Your task to perform on an android device: View the shopping cart on costco.com. Search for razer deathadder on costco.com, select the first entry, and add it to the cart. Image 0: 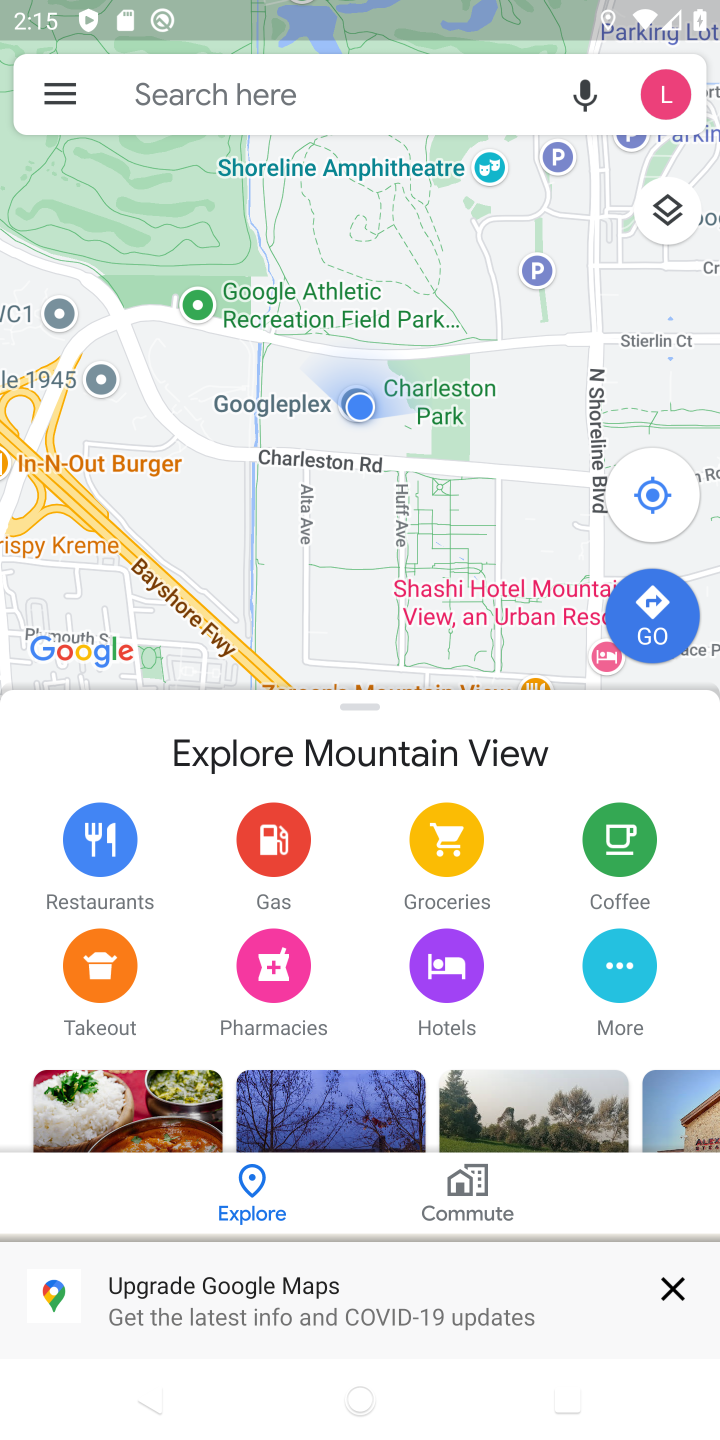
Step 0: press home button
Your task to perform on an android device: View the shopping cart on costco.com. Search for razer deathadder on costco.com, select the first entry, and add it to the cart. Image 1: 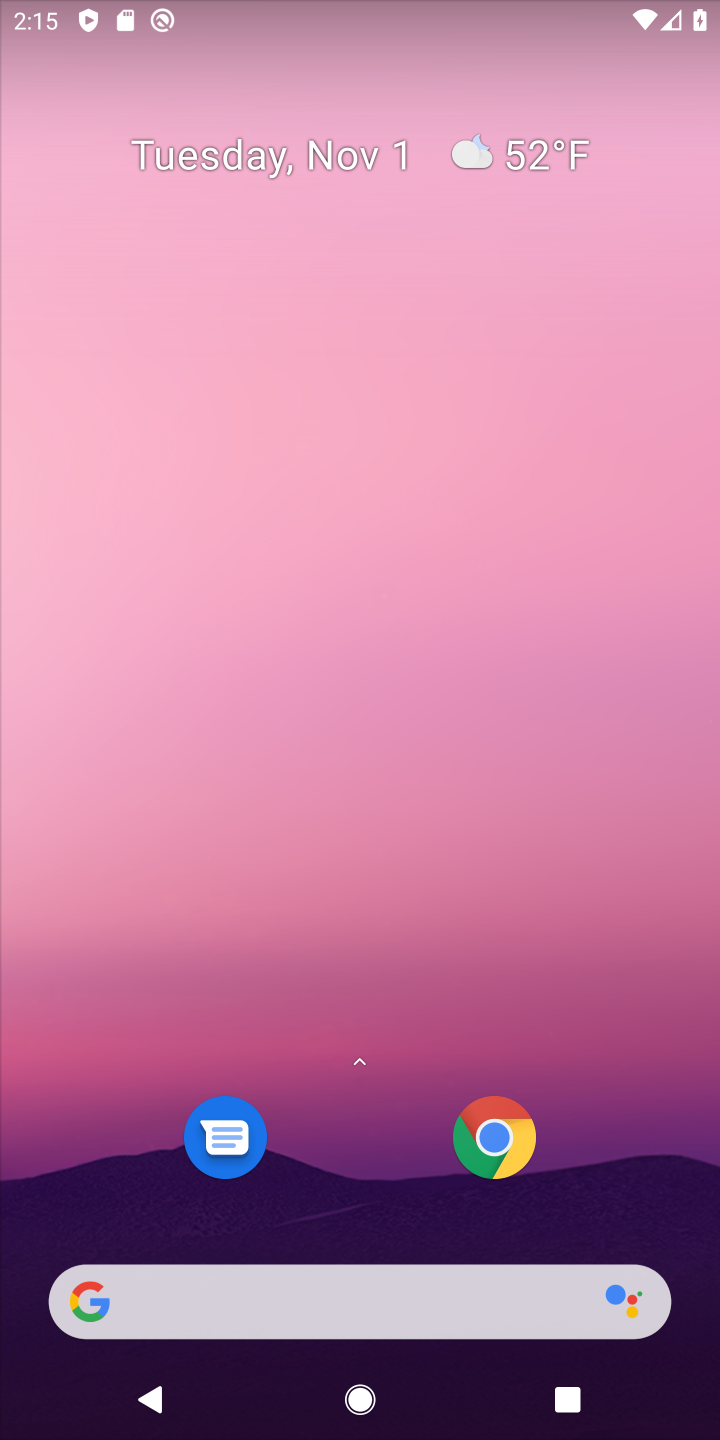
Step 1: click (335, 1294)
Your task to perform on an android device: View the shopping cart on costco.com. Search for razer deathadder on costco.com, select the first entry, and add it to the cart. Image 2: 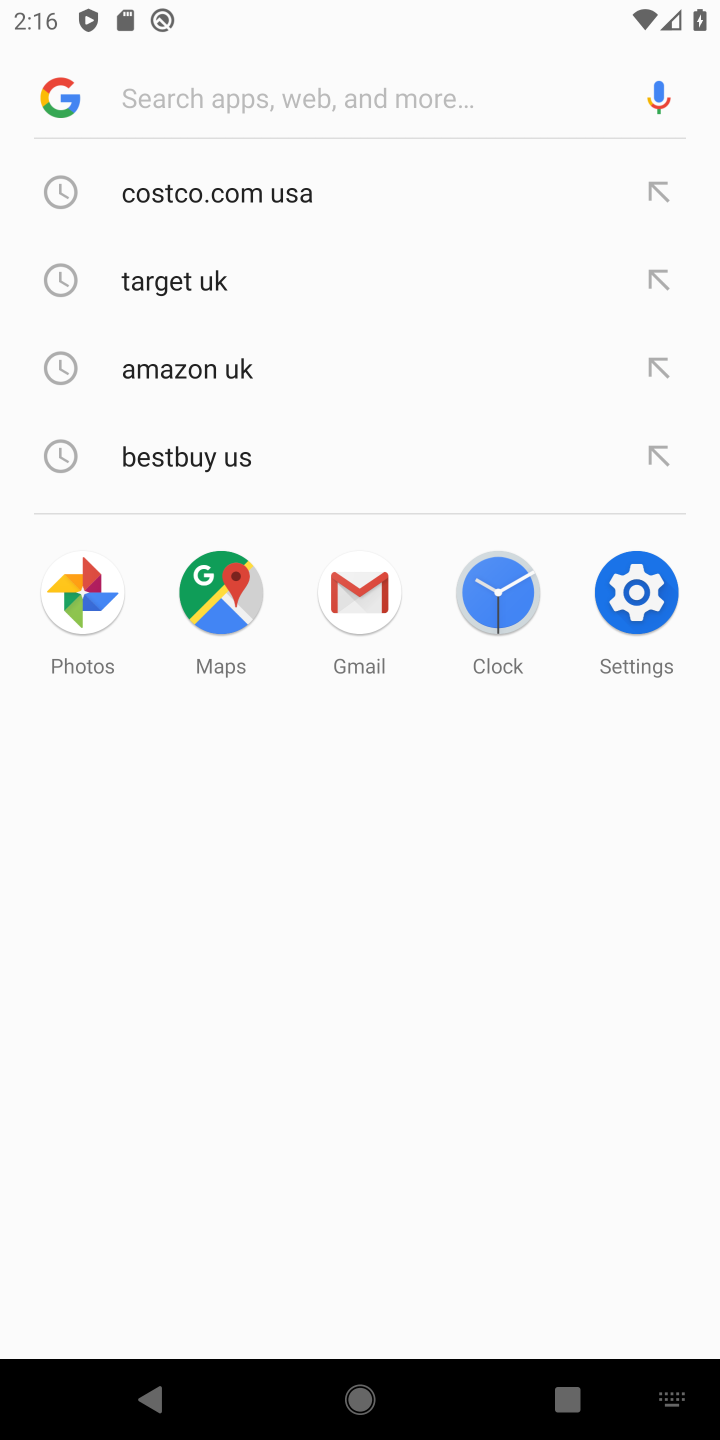
Step 2: click (276, 187)
Your task to perform on an android device: View the shopping cart on costco.com. Search for razer deathadder on costco.com, select the first entry, and add it to the cart. Image 3: 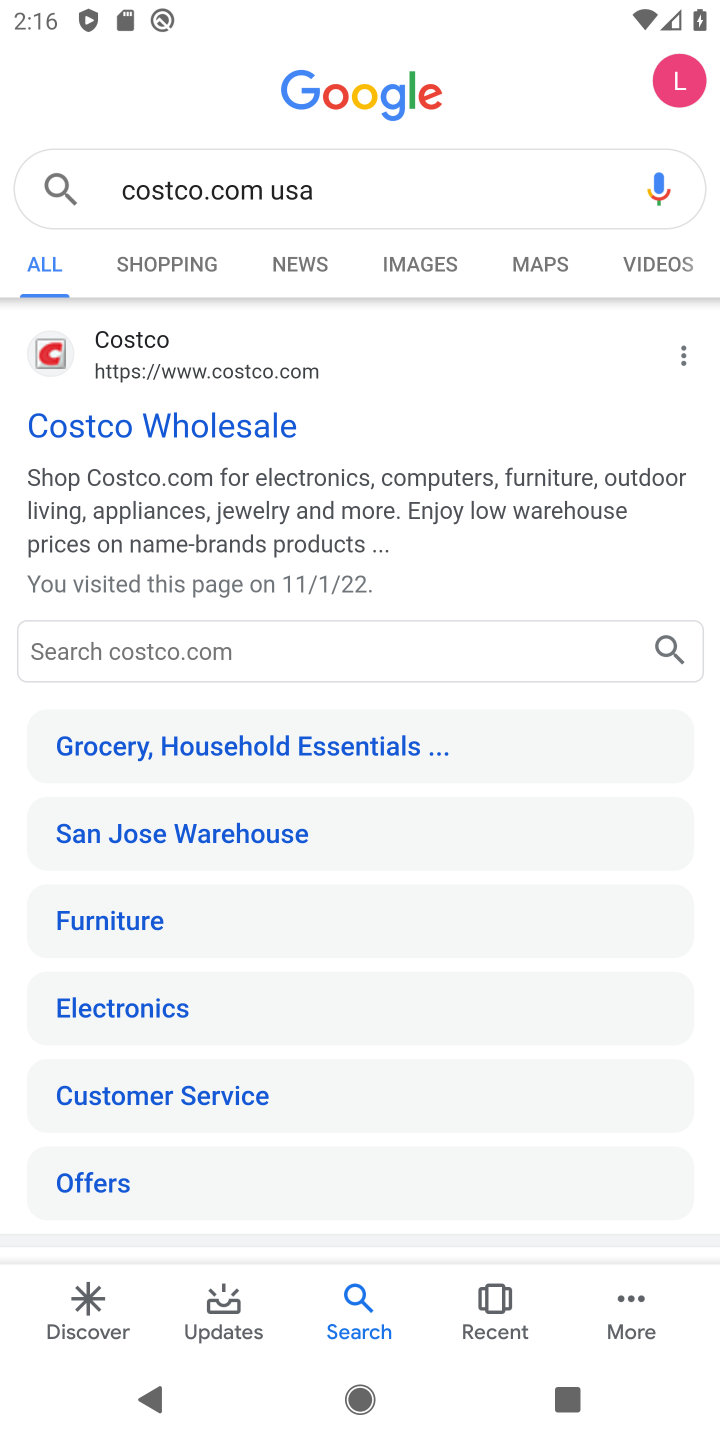
Step 3: click (194, 411)
Your task to perform on an android device: View the shopping cart on costco.com. Search for razer deathadder on costco.com, select the first entry, and add it to the cart. Image 4: 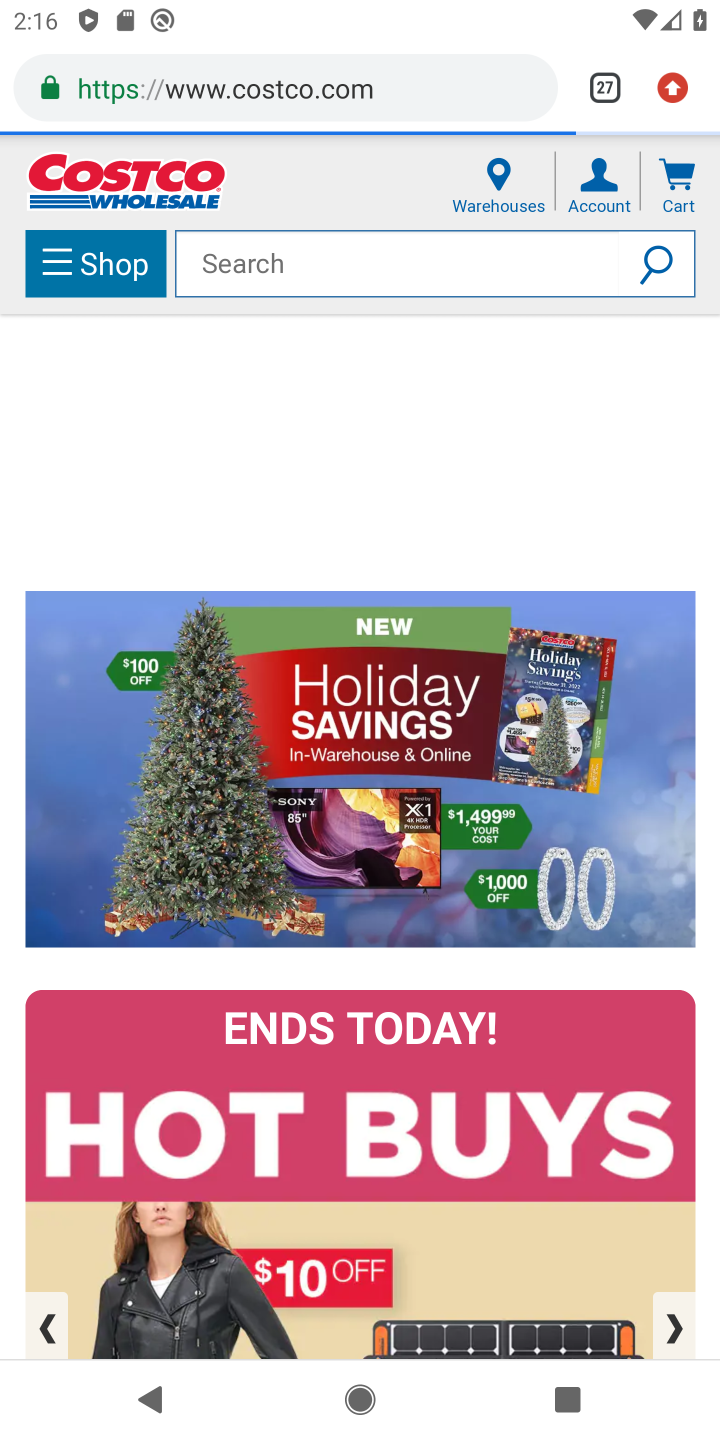
Step 4: click (233, 276)
Your task to perform on an android device: View the shopping cart on costco.com. Search for razer deathadder on costco.com, select the first entry, and add it to the cart. Image 5: 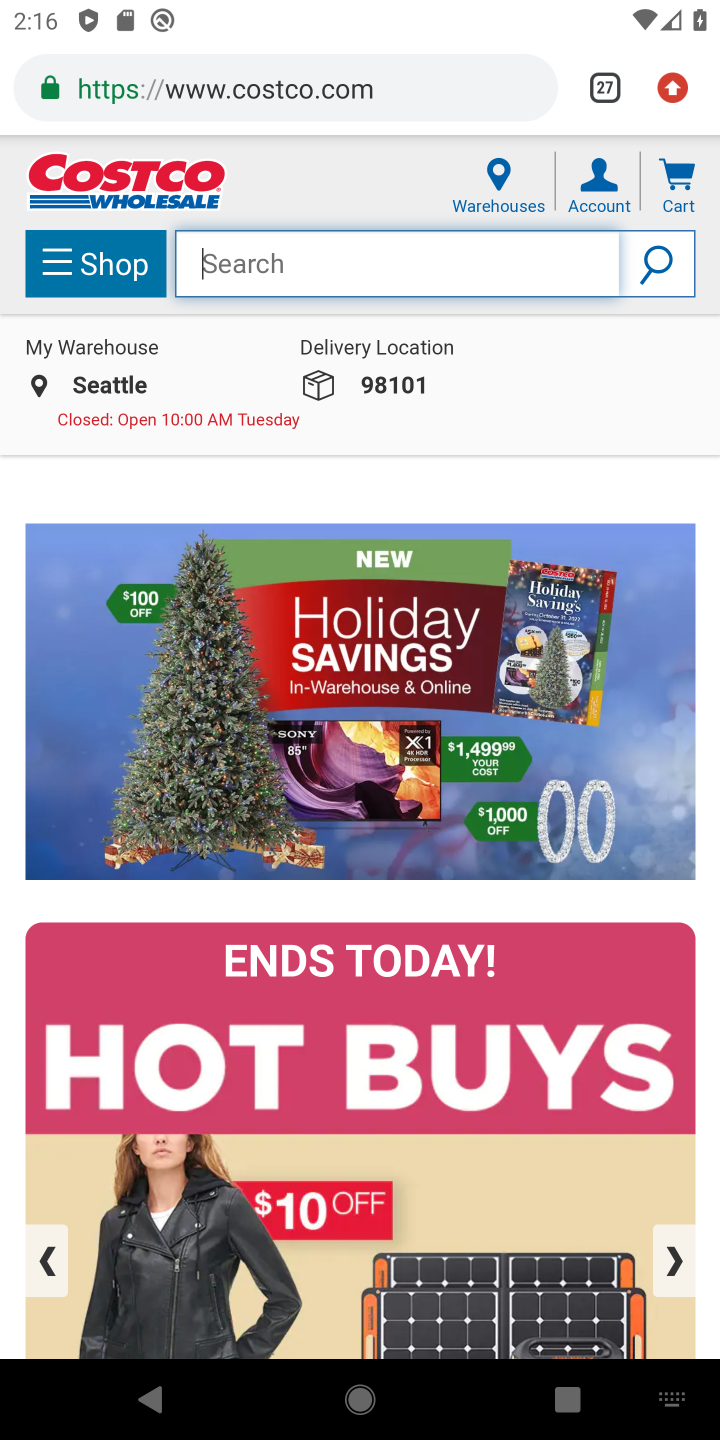
Step 5: type "razer deathadder"
Your task to perform on an android device: View the shopping cart on costco.com. Search for razer deathadder on costco.com, select the first entry, and add it to the cart. Image 6: 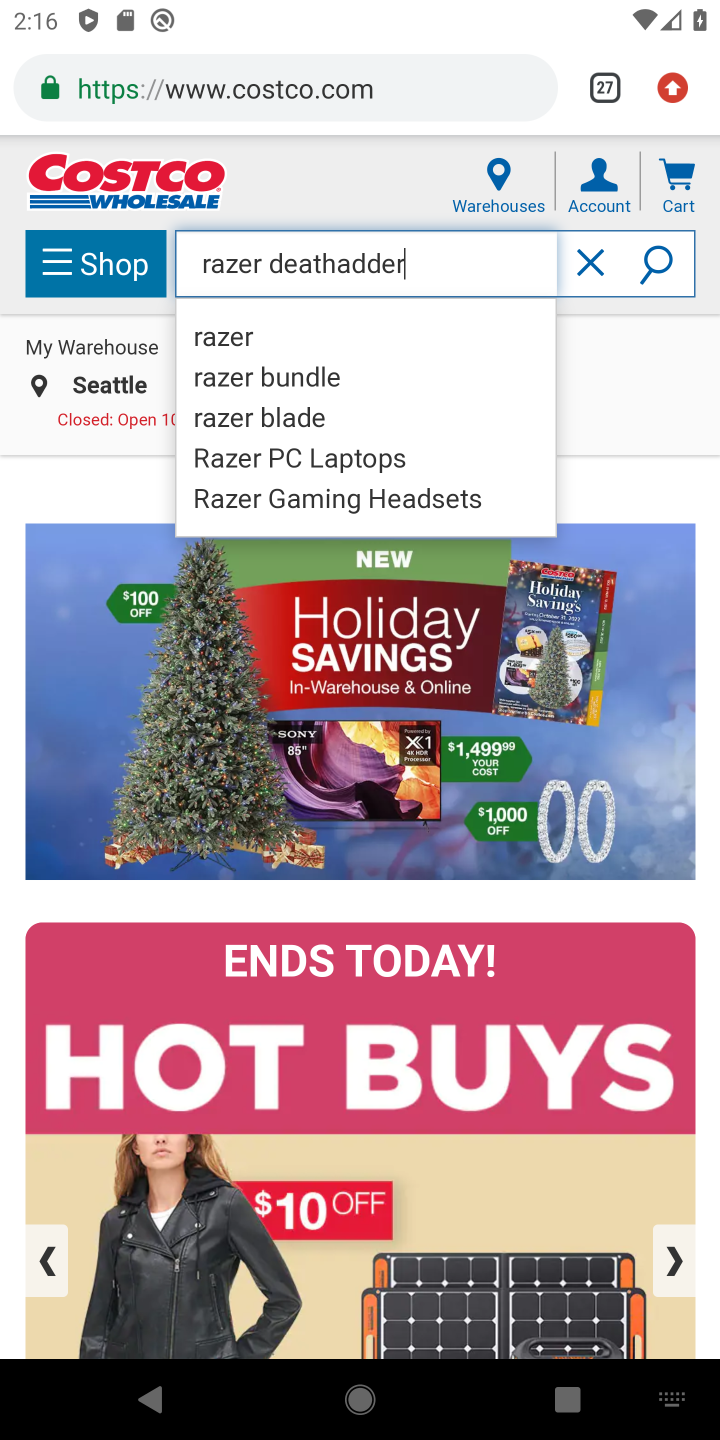
Step 6: click (674, 264)
Your task to perform on an android device: View the shopping cart on costco.com. Search for razer deathadder on costco.com, select the first entry, and add it to the cart. Image 7: 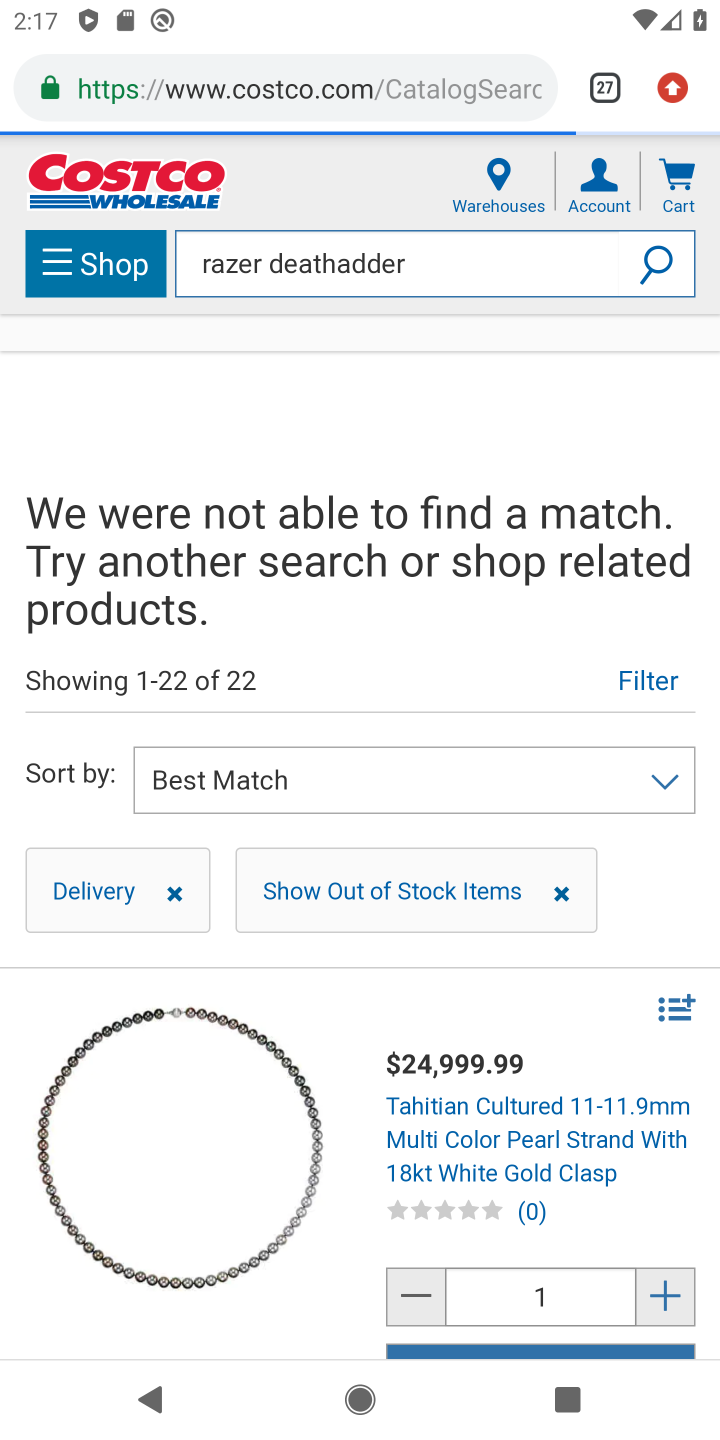
Step 7: click (676, 1290)
Your task to perform on an android device: View the shopping cart on costco.com. Search for razer deathadder on costco.com, select the first entry, and add it to the cart. Image 8: 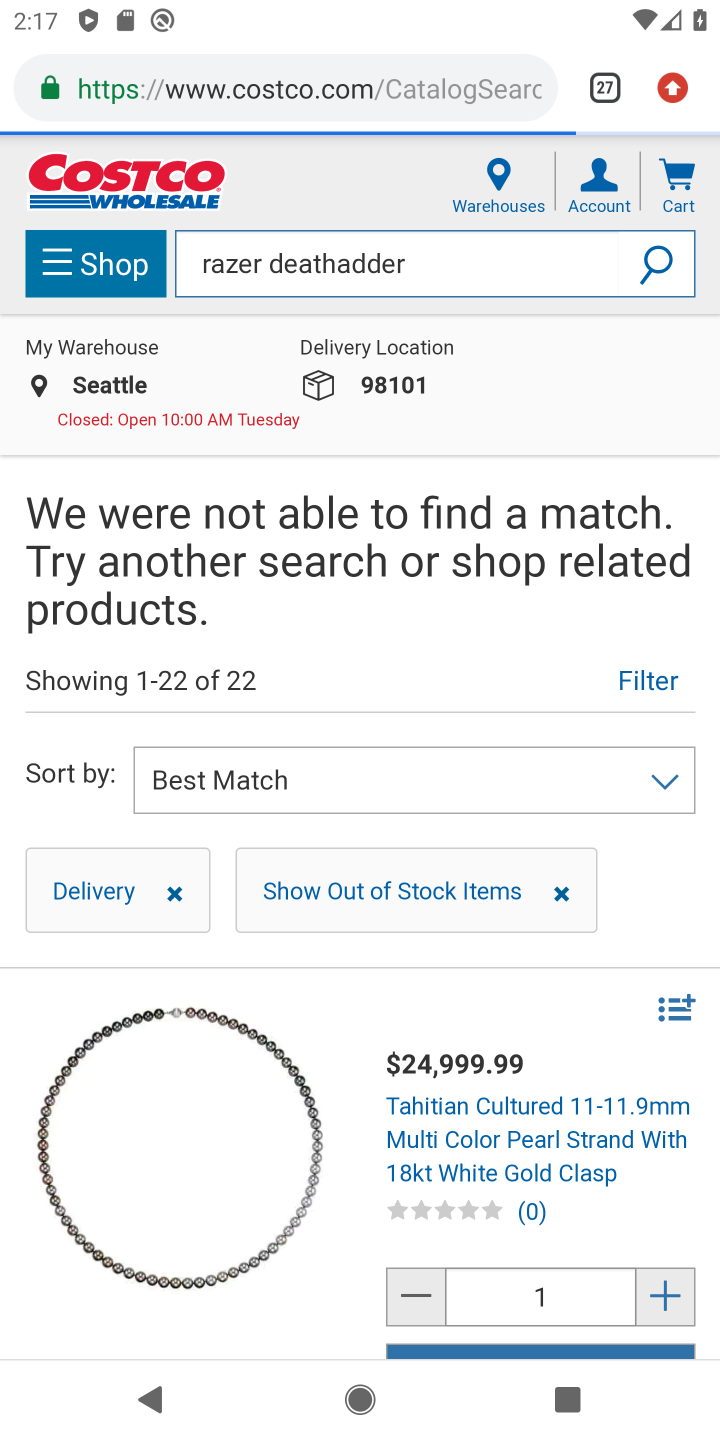
Step 8: task complete